Your task to perform on an android device: make emails show in primary in the gmail app Image 0: 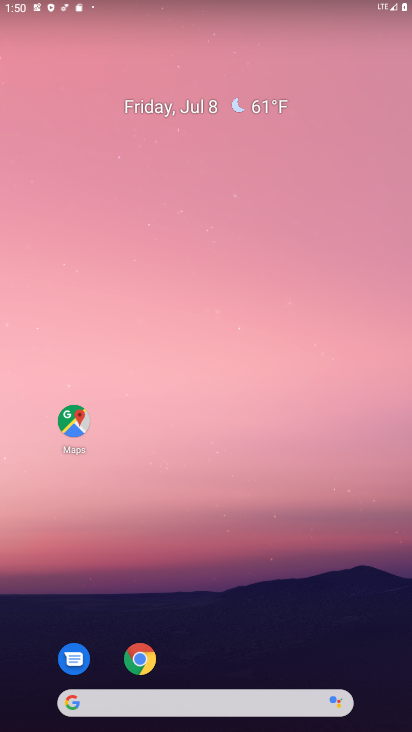
Step 0: drag from (221, 681) to (166, 69)
Your task to perform on an android device: make emails show in primary in the gmail app Image 1: 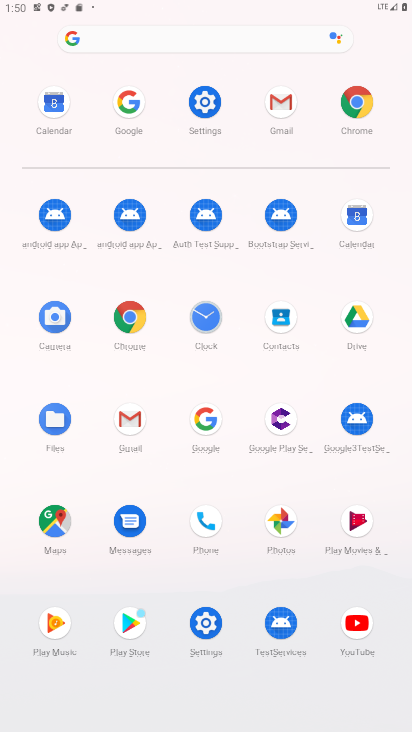
Step 1: click (132, 419)
Your task to perform on an android device: make emails show in primary in the gmail app Image 2: 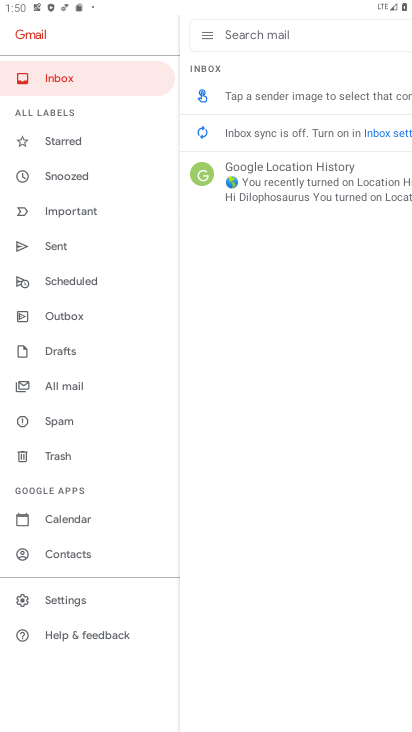
Step 2: click (83, 605)
Your task to perform on an android device: make emails show in primary in the gmail app Image 3: 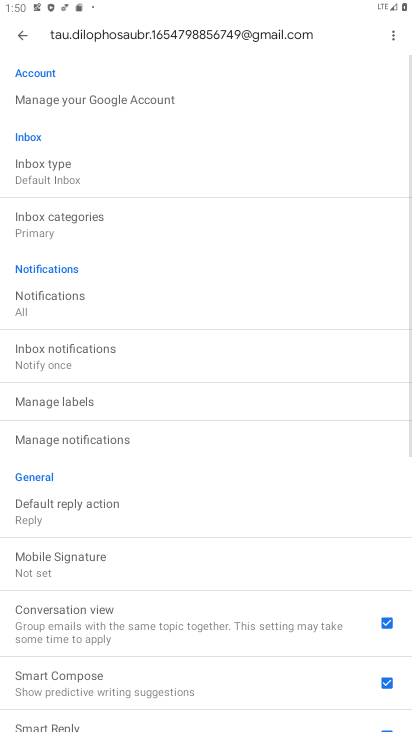
Step 3: click (34, 194)
Your task to perform on an android device: make emails show in primary in the gmail app Image 4: 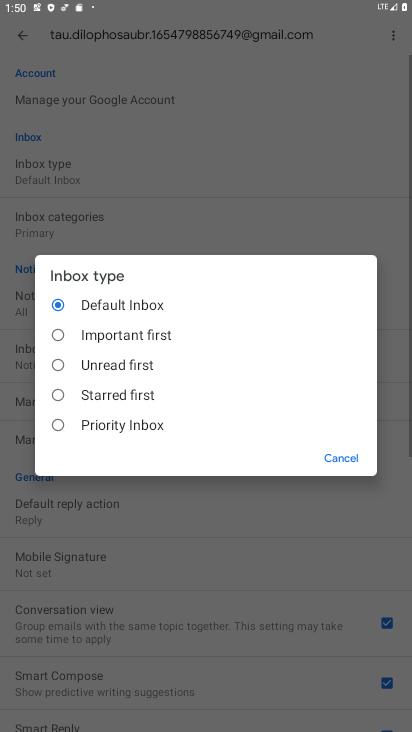
Step 4: click (121, 497)
Your task to perform on an android device: make emails show in primary in the gmail app Image 5: 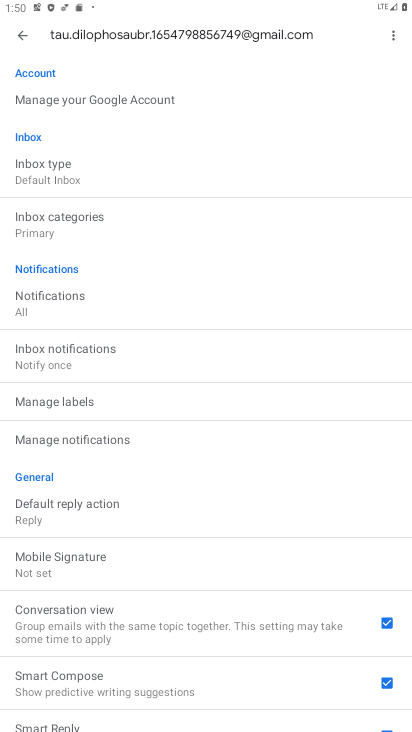
Step 5: click (49, 229)
Your task to perform on an android device: make emails show in primary in the gmail app Image 6: 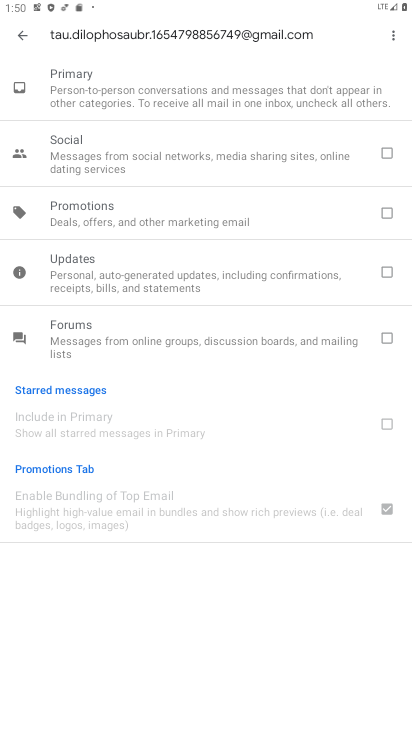
Step 6: click (385, 149)
Your task to perform on an android device: make emails show in primary in the gmail app Image 7: 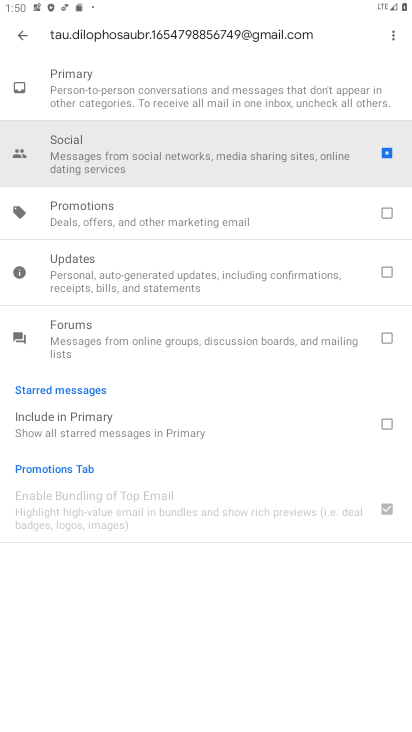
Step 7: click (380, 206)
Your task to perform on an android device: make emails show in primary in the gmail app Image 8: 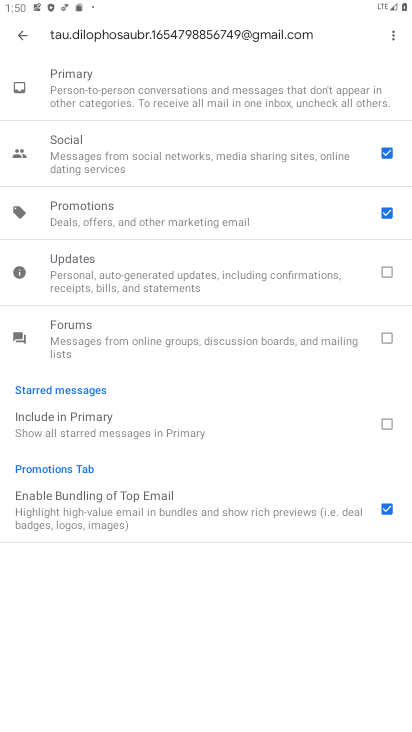
Step 8: click (384, 263)
Your task to perform on an android device: make emails show in primary in the gmail app Image 9: 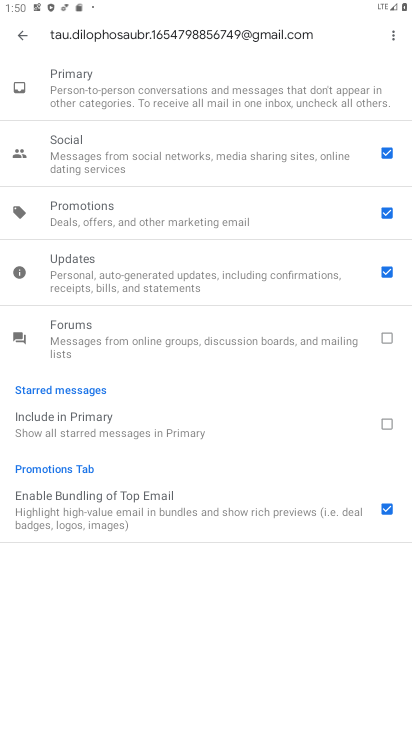
Step 9: click (20, 31)
Your task to perform on an android device: make emails show in primary in the gmail app Image 10: 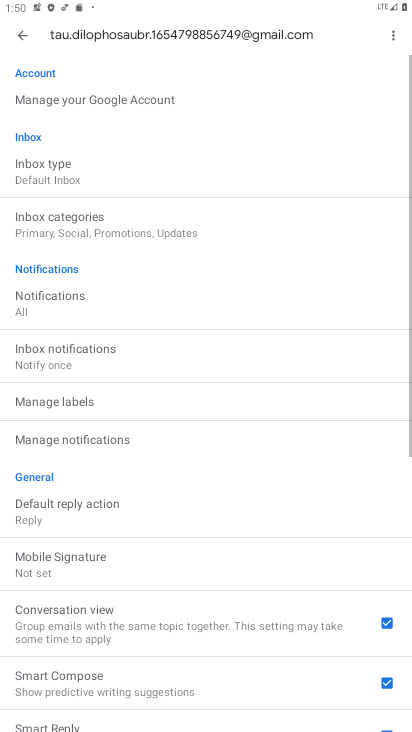
Step 10: click (19, 30)
Your task to perform on an android device: make emails show in primary in the gmail app Image 11: 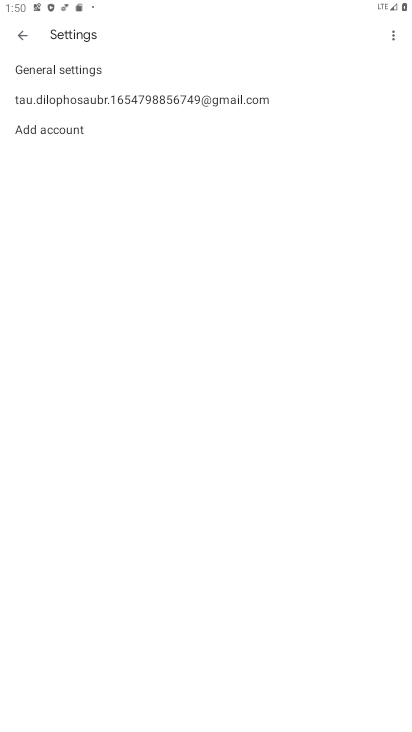
Step 11: click (19, 30)
Your task to perform on an android device: make emails show in primary in the gmail app Image 12: 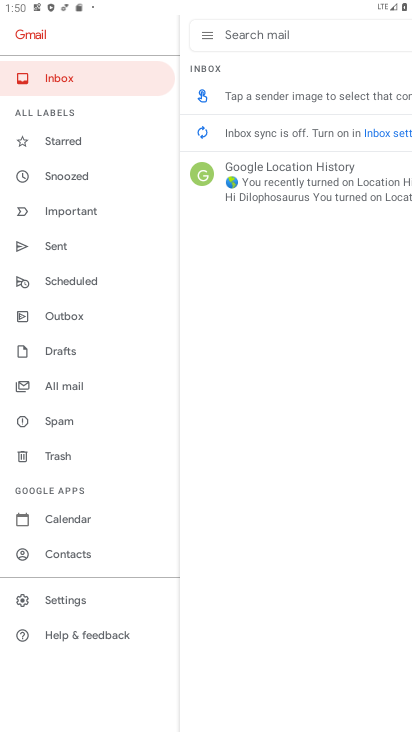
Step 12: drag from (73, 113) to (92, 414)
Your task to perform on an android device: make emails show in primary in the gmail app Image 13: 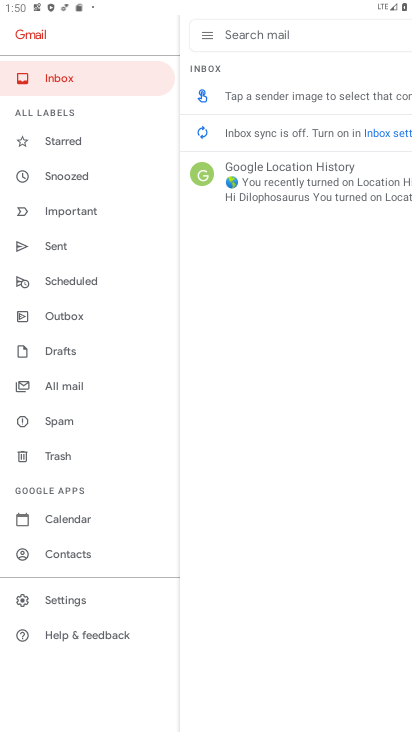
Step 13: click (71, 597)
Your task to perform on an android device: make emails show in primary in the gmail app Image 14: 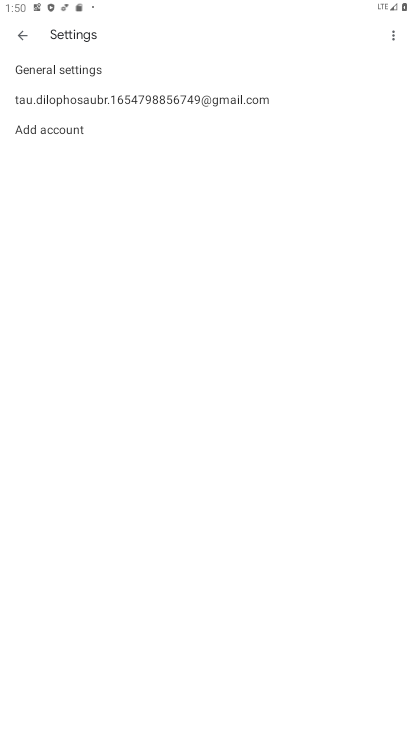
Step 14: click (48, 95)
Your task to perform on an android device: make emails show in primary in the gmail app Image 15: 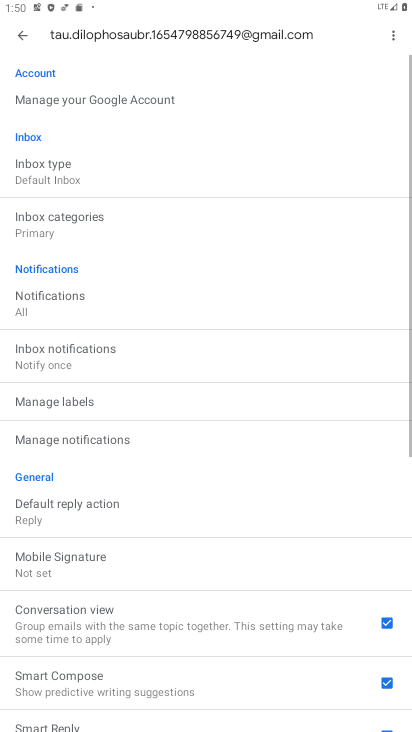
Step 15: click (46, 177)
Your task to perform on an android device: make emails show in primary in the gmail app Image 16: 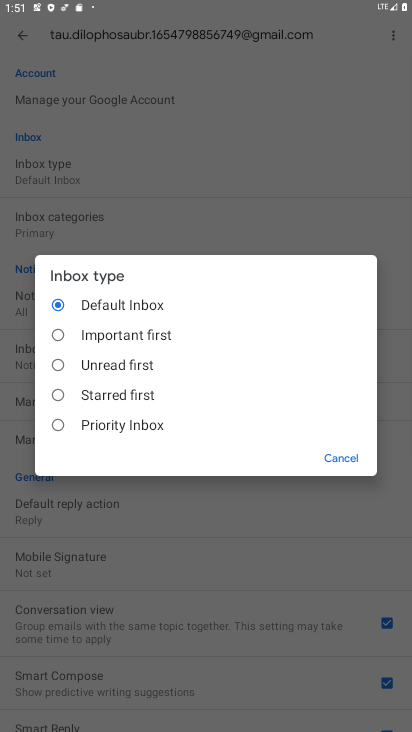
Step 16: click (108, 441)
Your task to perform on an android device: make emails show in primary in the gmail app Image 17: 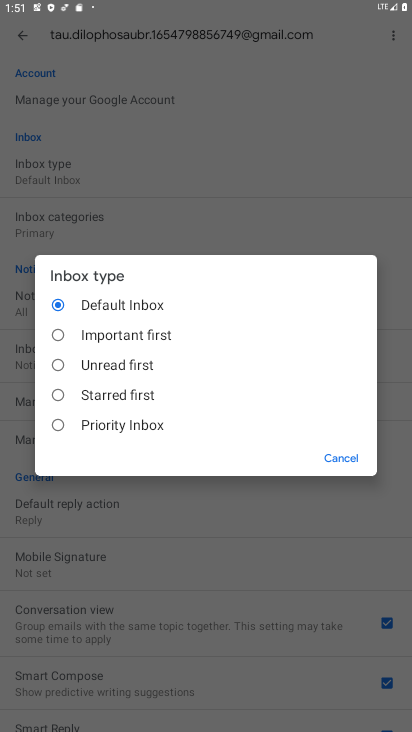
Step 17: click (102, 411)
Your task to perform on an android device: make emails show in primary in the gmail app Image 18: 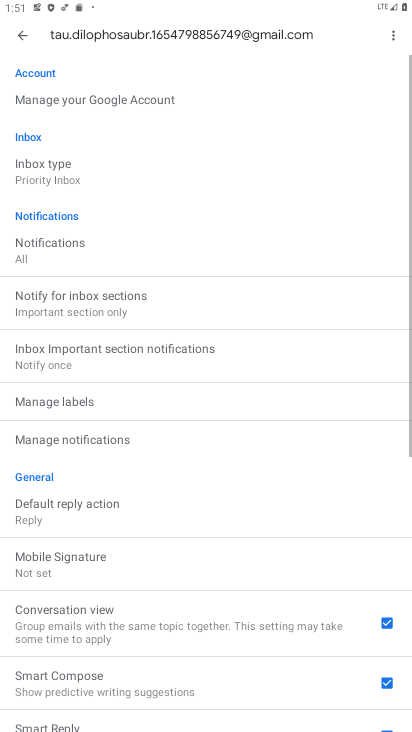
Step 18: click (44, 171)
Your task to perform on an android device: make emails show in primary in the gmail app Image 19: 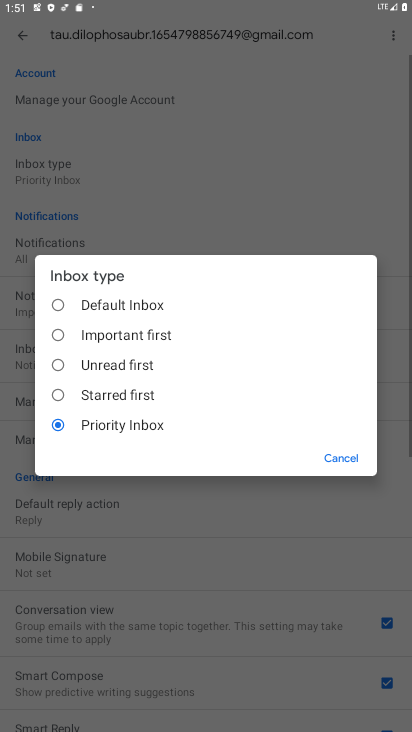
Step 19: click (91, 316)
Your task to perform on an android device: make emails show in primary in the gmail app Image 20: 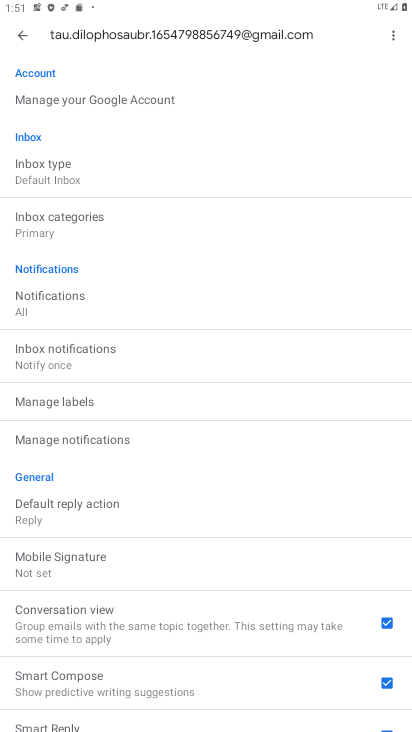
Step 20: task complete